Your task to perform on an android device: Show me popular games on the Play Store Image 0: 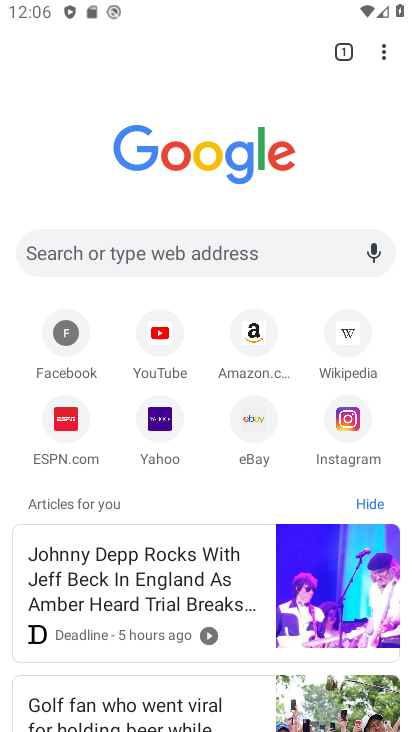
Step 0: press back button
Your task to perform on an android device: Show me popular games on the Play Store Image 1: 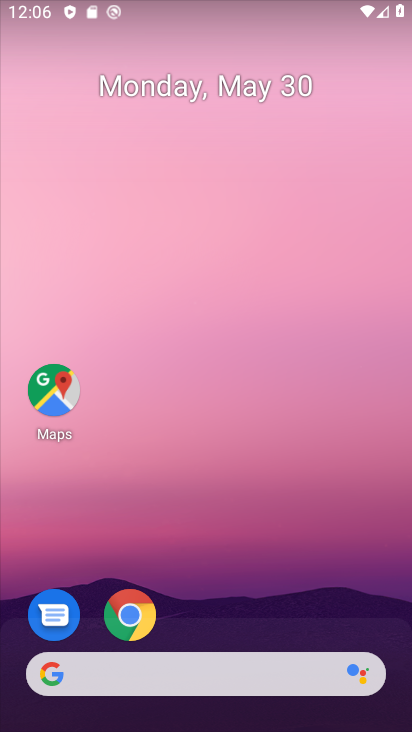
Step 1: drag from (274, 349) to (313, 6)
Your task to perform on an android device: Show me popular games on the Play Store Image 2: 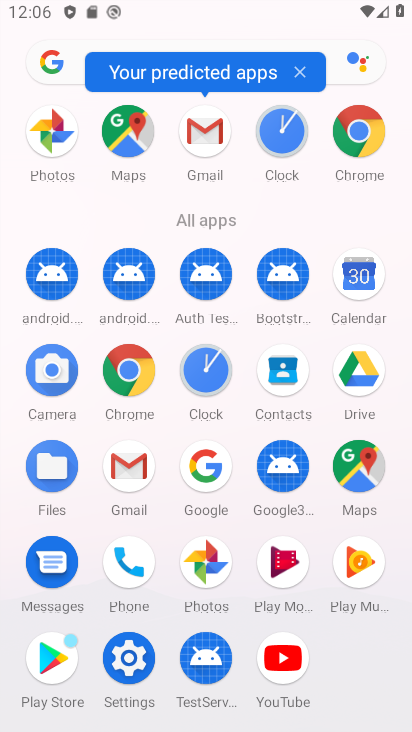
Step 2: click (44, 659)
Your task to perform on an android device: Show me popular games on the Play Store Image 3: 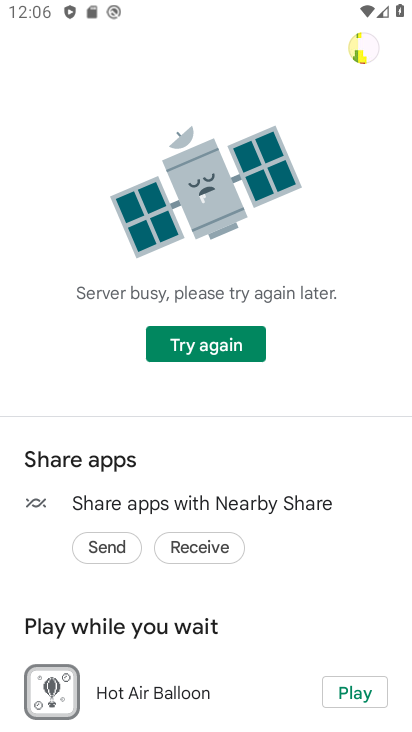
Step 3: click (175, 341)
Your task to perform on an android device: Show me popular games on the Play Store Image 4: 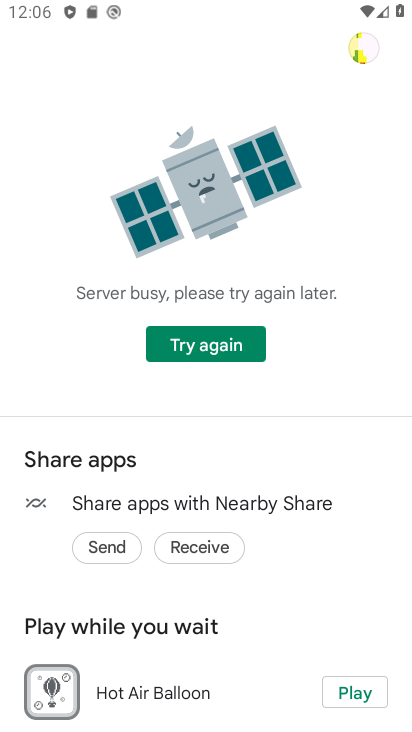
Step 4: press back button
Your task to perform on an android device: Show me popular games on the Play Store Image 5: 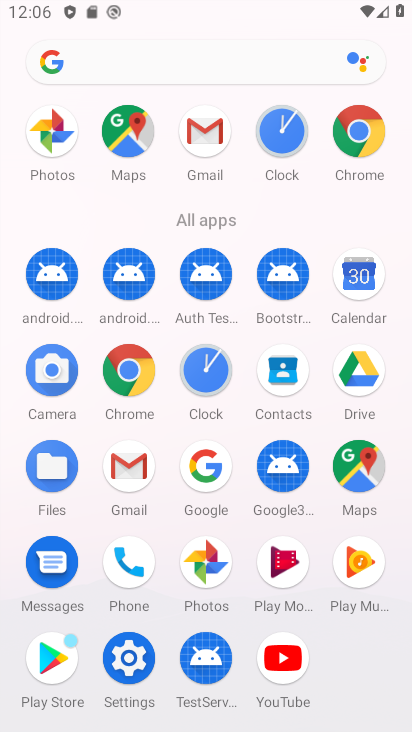
Step 5: click (56, 651)
Your task to perform on an android device: Show me popular games on the Play Store Image 6: 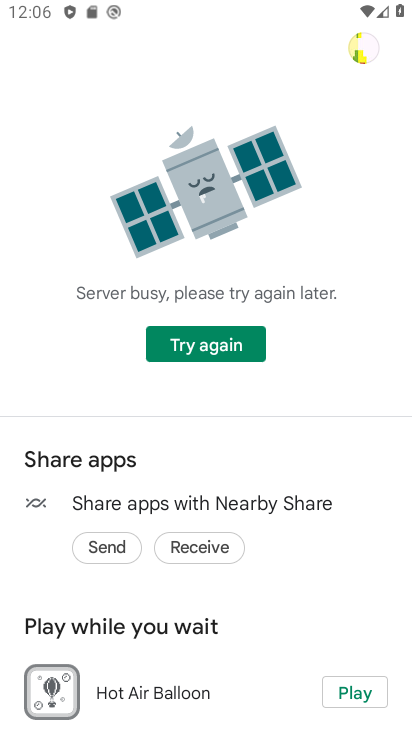
Step 6: task complete